Your task to perform on an android device: Go to ESPN.com Image 0: 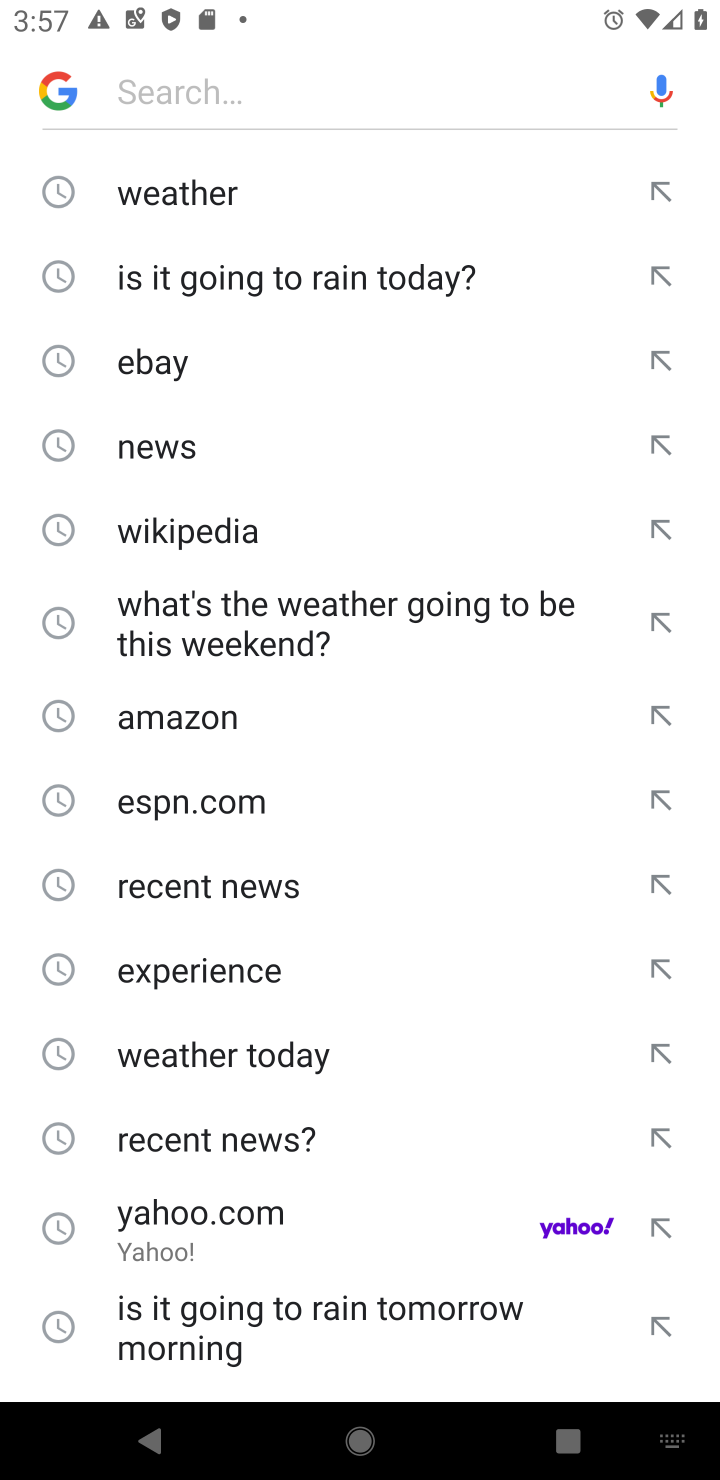
Step 0: press home button
Your task to perform on an android device: Go to ESPN.com Image 1: 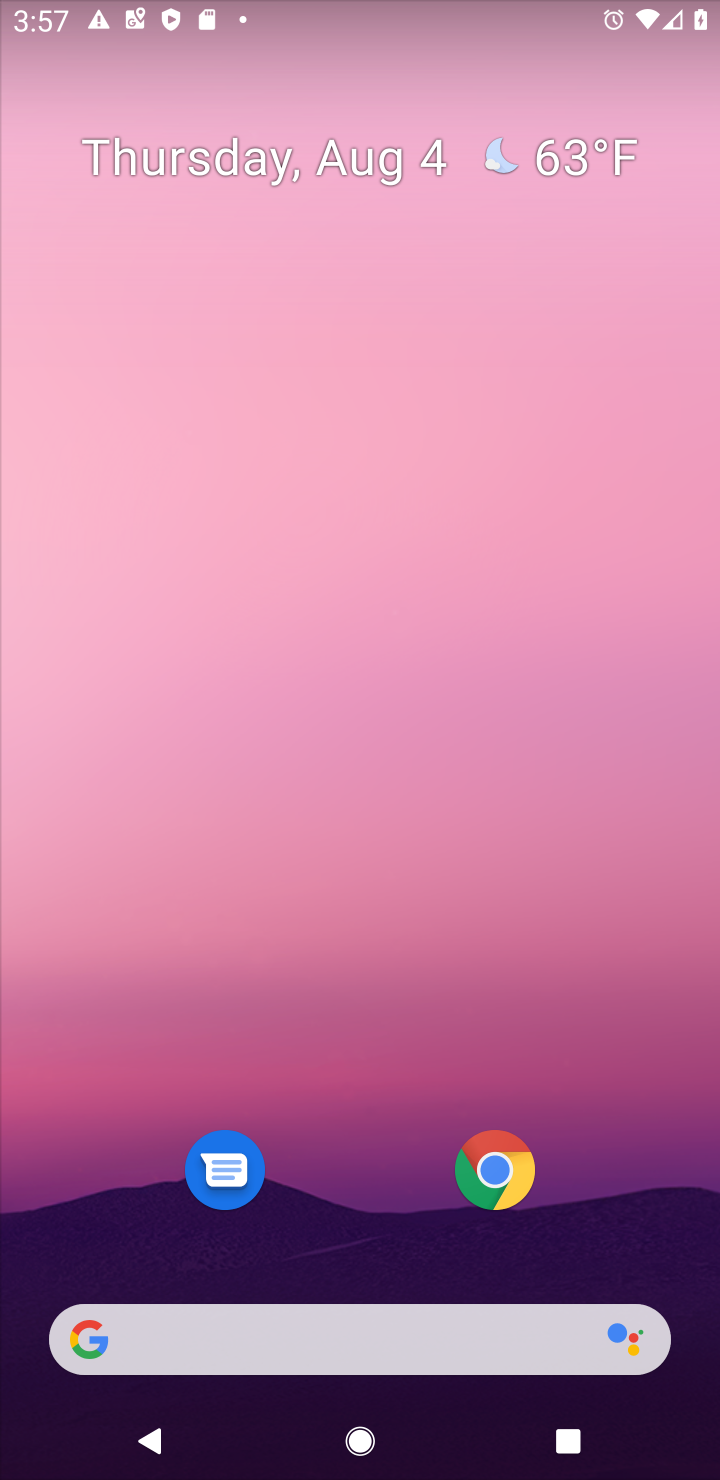
Step 1: click (485, 1176)
Your task to perform on an android device: Go to ESPN.com Image 2: 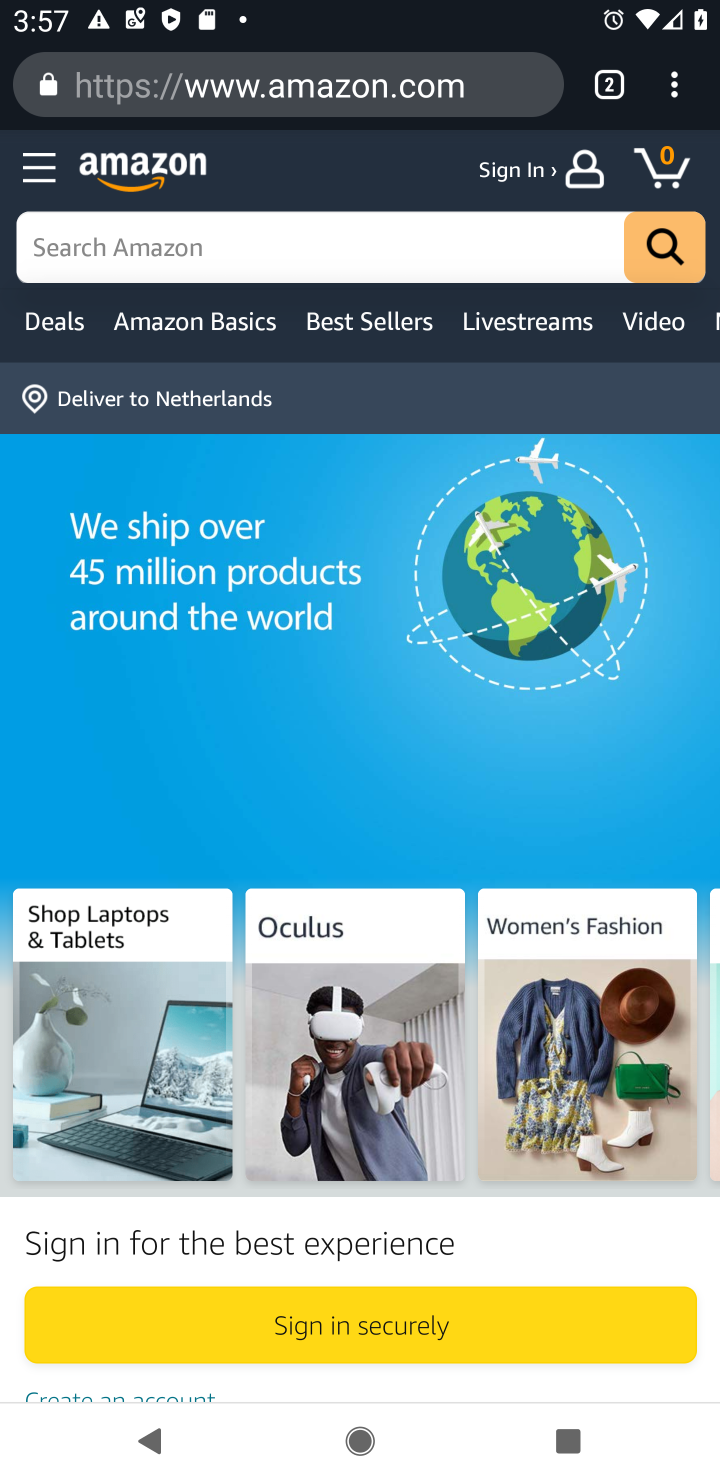
Step 2: click (478, 90)
Your task to perform on an android device: Go to ESPN.com Image 3: 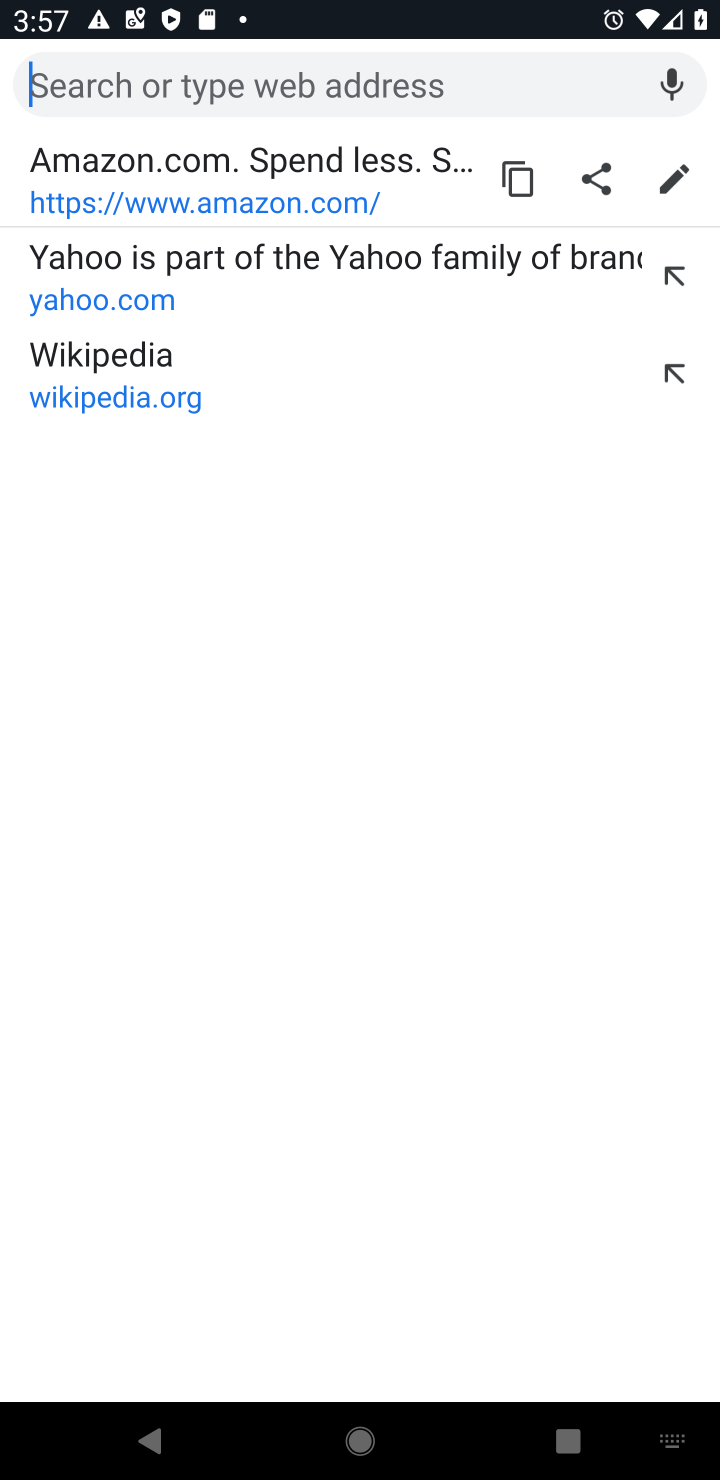
Step 3: type "espn.com"
Your task to perform on an android device: Go to ESPN.com Image 4: 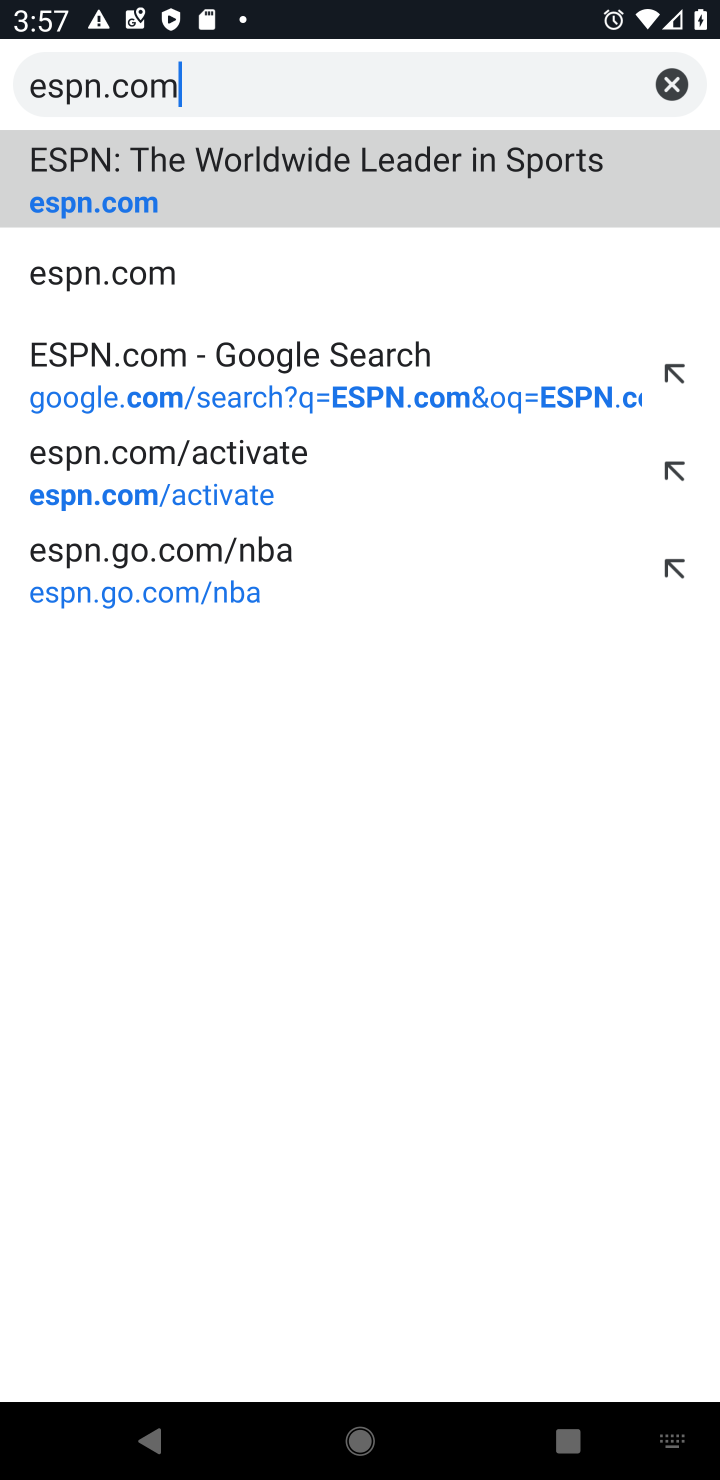
Step 4: click (154, 159)
Your task to perform on an android device: Go to ESPN.com Image 5: 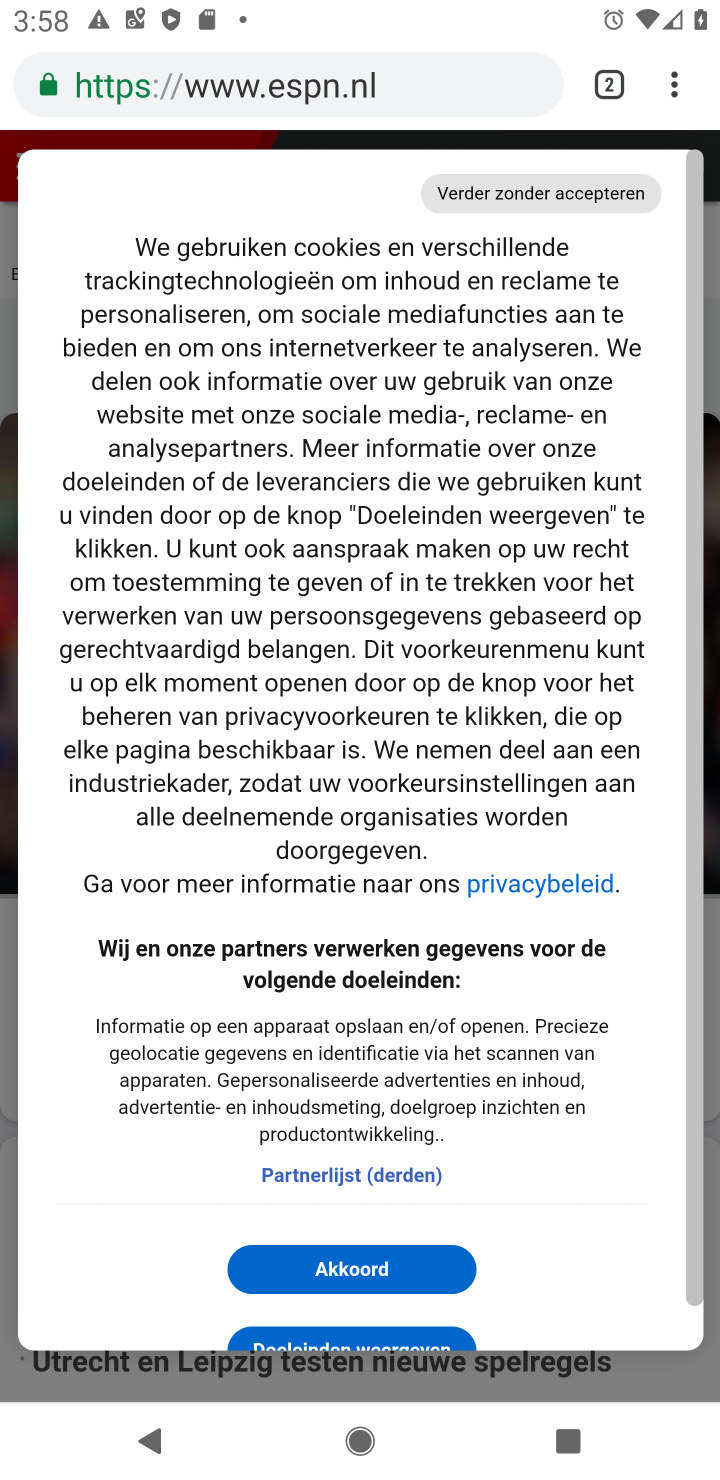
Step 5: click (365, 1282)
Your task to perform on an android device: Go to ESPN.com Image 6: 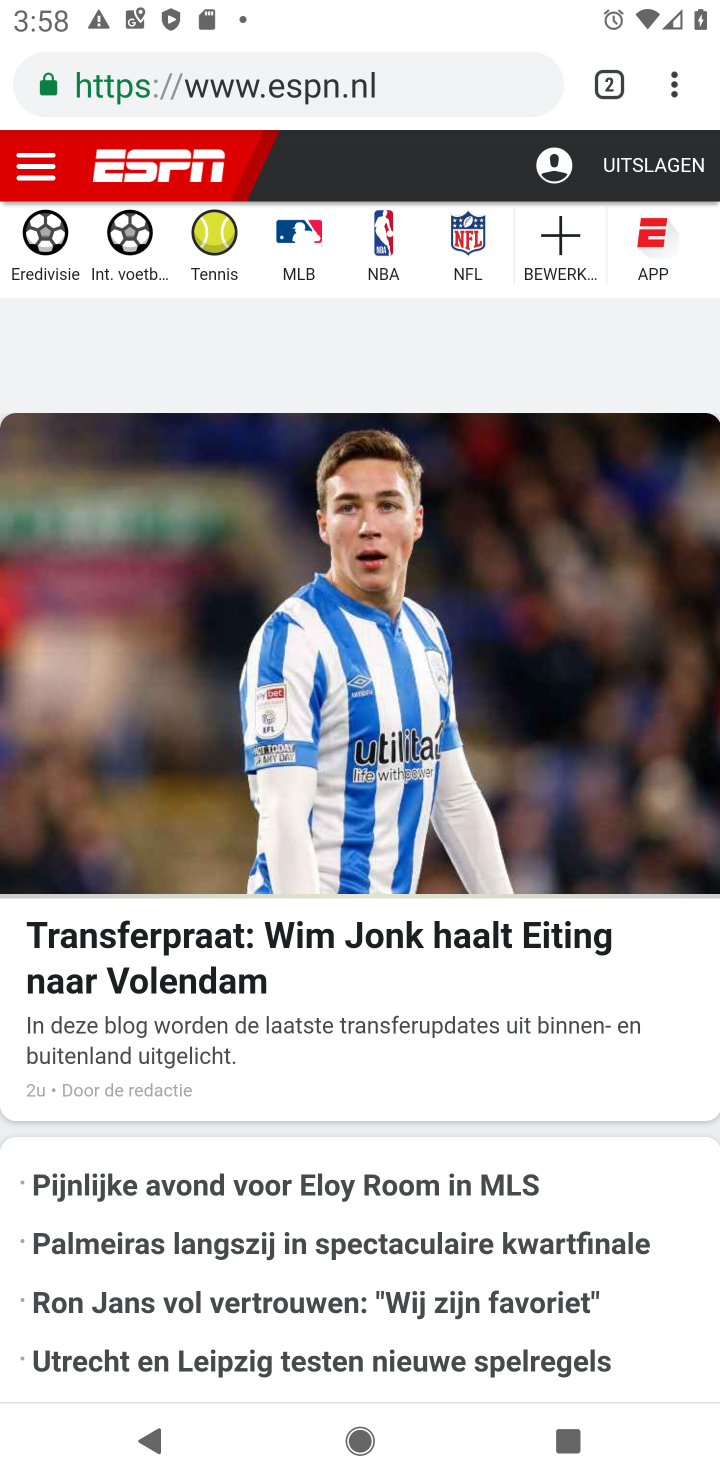
Step 6: task complete